Your task to perform on an android device: Open Reddit.com Image 0: 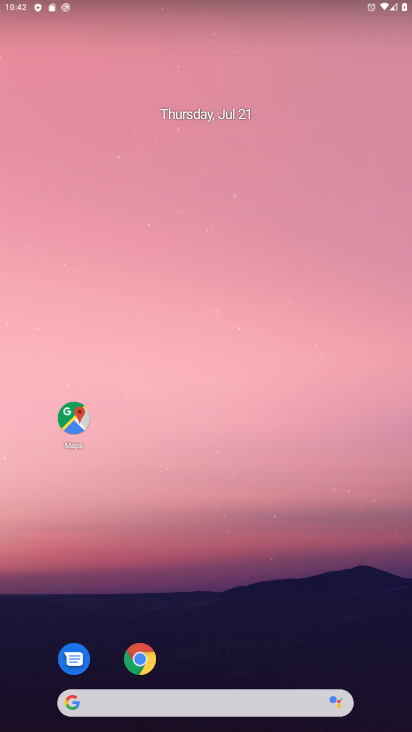
Step 0: click (146, 655)
Your task to perform on an android device: Open Reddit.com Image 1: 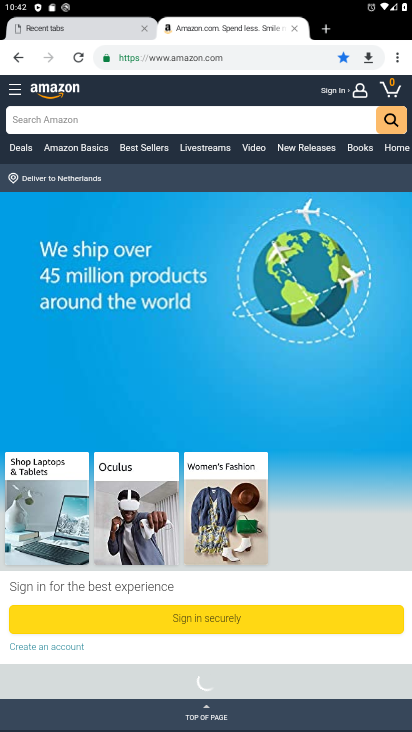
Step 1: click (212, 55)
Your task to perform on an android device: Open Reddit.com Image 2: 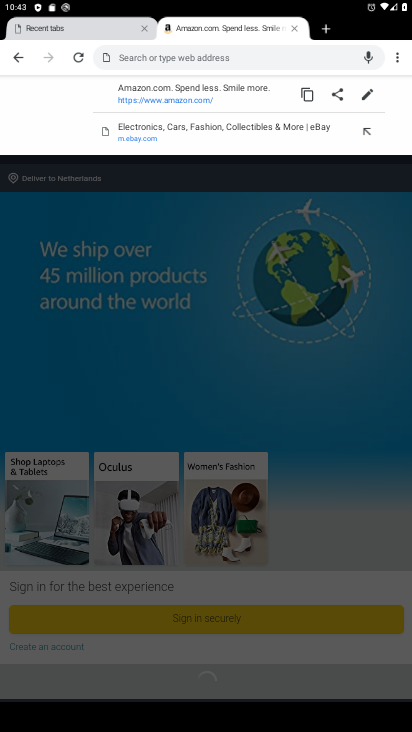
Step 2: type "reddit.com"
Your task to perform on an android device: Open Reddit.com Image 3: 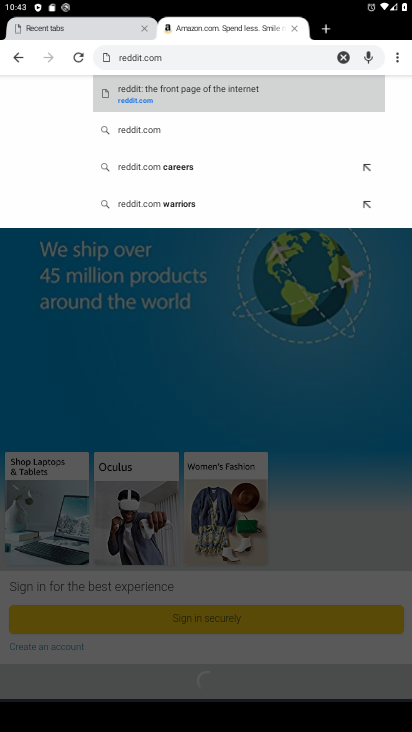
Step 3: click (159, 96)
Your task to perform on an android device: Open Reddit.com Image 4: 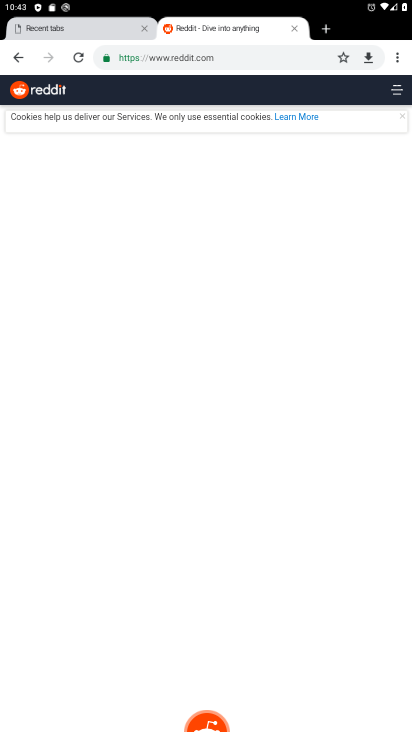
Step 4: task complete